Your task to perform on an android device: Open the Play Movies app and select the watchlist tab. Image 0: 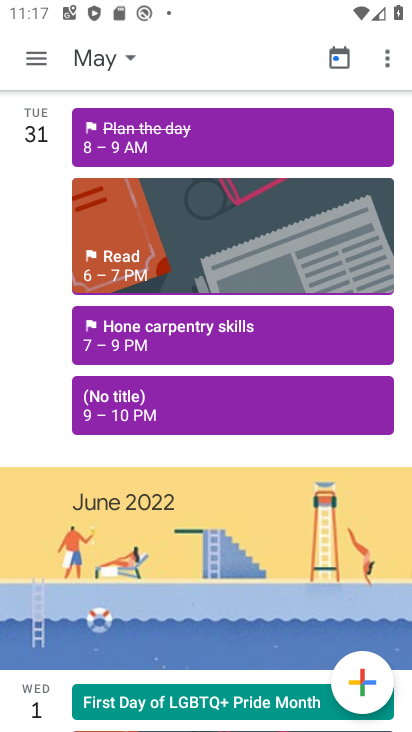
Step 0: press home button
Your task to perform on an android device: Open the Play Movies app and select the watchlist tab. Image 1: 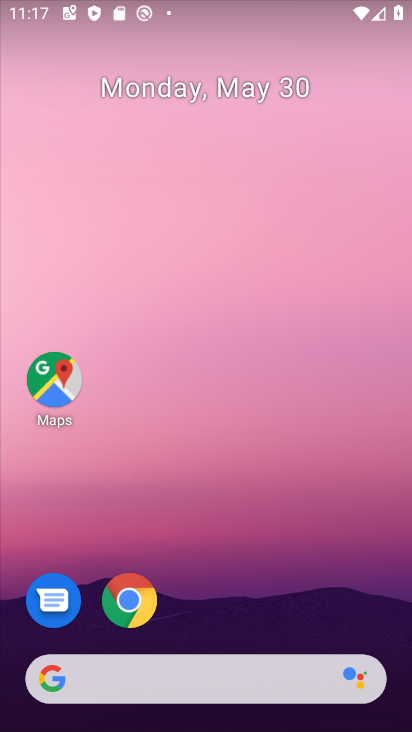
Step 1: drag from (218, 725) to (199, 422)
Your task to perform on an android device: Open the Play Movies app and select the watchlist tab. Image 2: 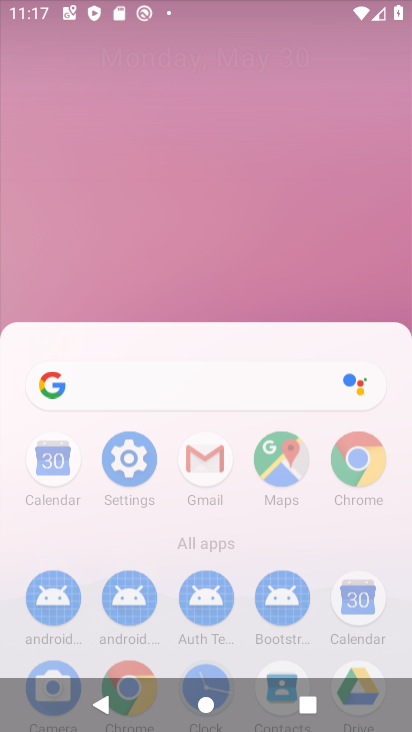
Step 2: click (197, 130)
Your task to perform on an android device: Open the Play Movies app and select the watchlist tab. Image 3: 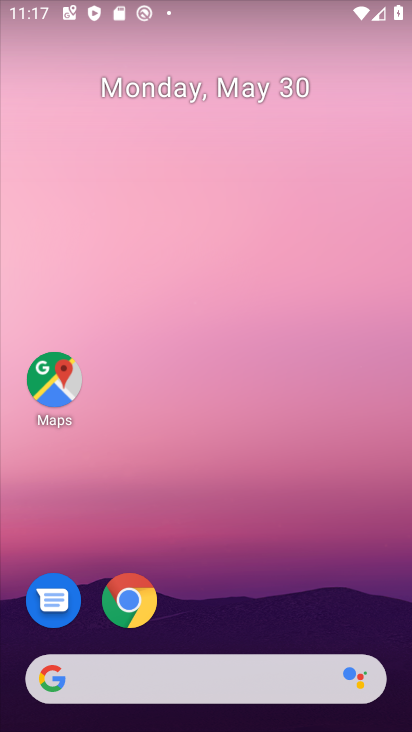
Step 3: drag from (186, 722) to (188, 541)
Your task to perform on an android device: Open the Play Movies app and select the watchlist tab. Image 4: 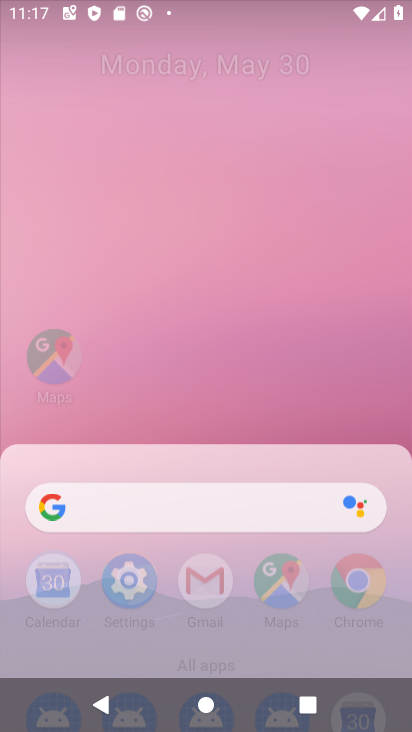
Step 4: click (178, 143)
Your task to perform on an android device: Open the Play Movies app and select the watchlist tab. Image 5: 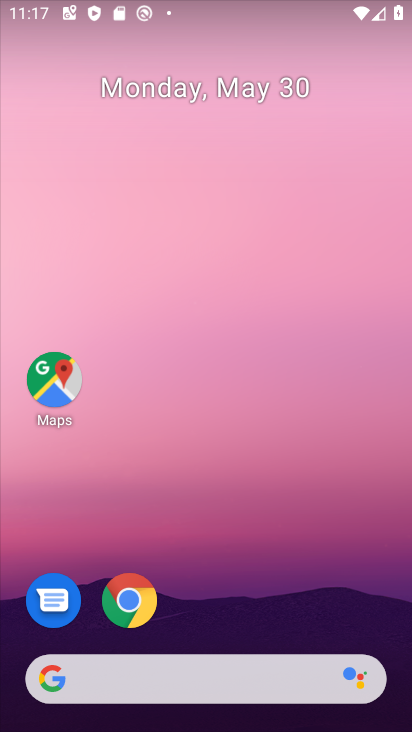
Step 5: drag from (226, 723) to (203, 7)
Your task to perform on an android device: Open the Play Movies app and select the watchlist tab. Image 6: 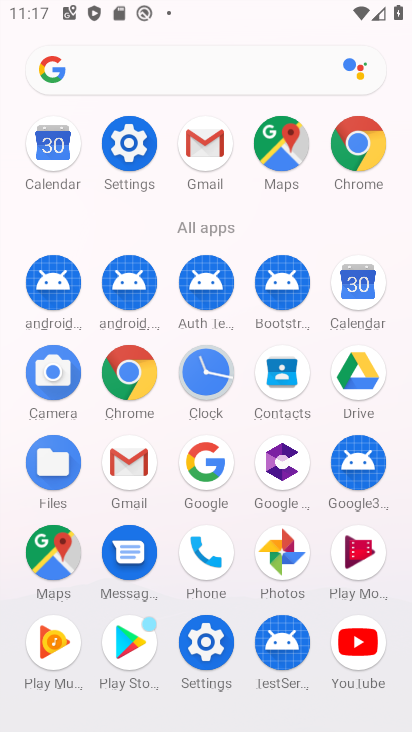
Step 6: click (355, 555)
Your task to perform on an android device: Open the Play Movies app and select the watchlist tab. Image 7: 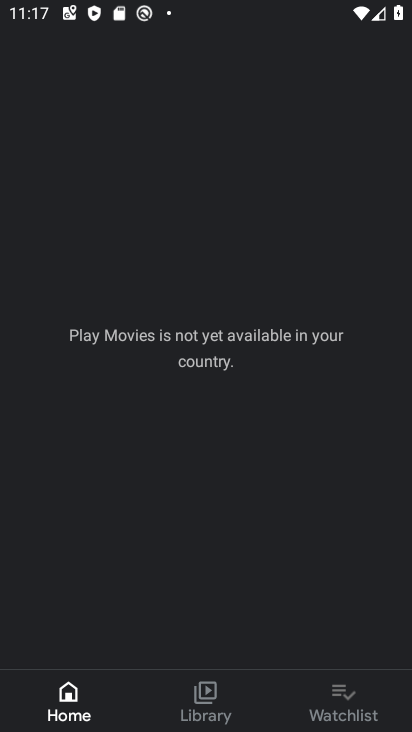
Step 7: click (341, 698)
Your task to perform on an android device: Open the Play Movies app and select the watchlist tab. Image 8: 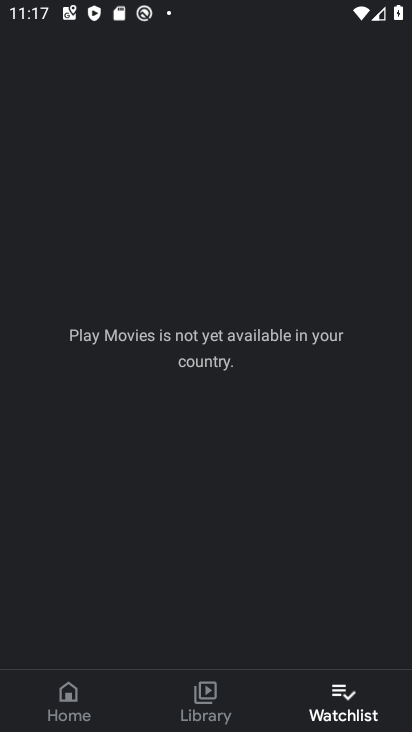
Step 8: task complete